Your task to perform on an android device: Add logitech g910 to the cart on bestbuy.com Image 0: 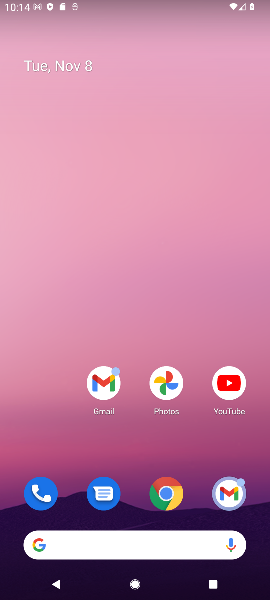
Step 0: click (166, 492)
Your task to perform on an android device: Add logitech g910 to the cart on bestbuy.com Image 1: 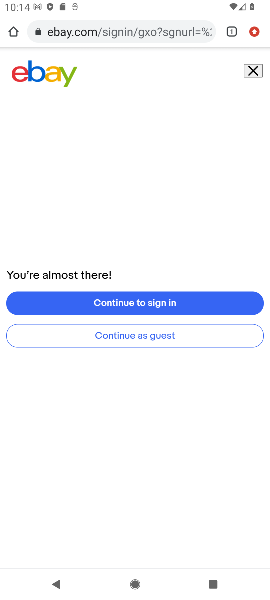
Step 1: click (92, 34)
Your task to perform on an android device: Add logitech g910 to the cart on bestbuy.com Image 2: 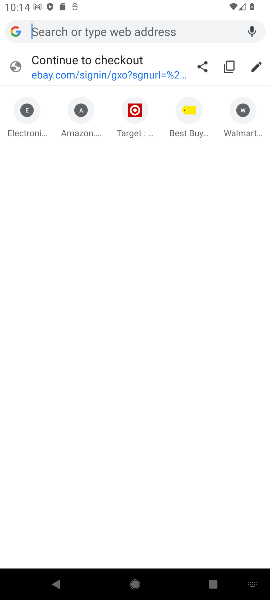
Step 2: click (183, 128)
Your task to perform on an android device: Add logitech g910 to the cart on bestbuy.com Image 3: 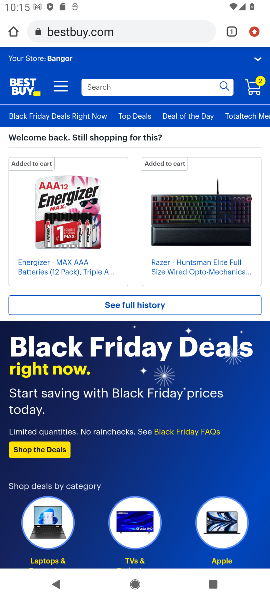
Step 3: click (112, 87)
Your task to perform on an android device: Add logitech g910 to the cart on bestbuy.com Image 4: 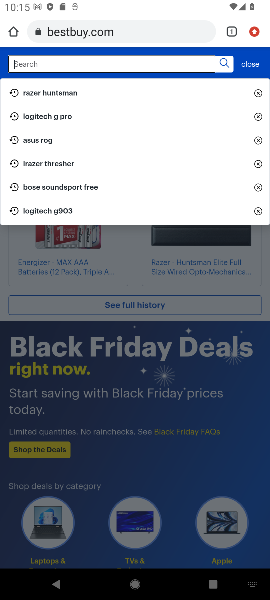
Step 4: type " logitech g910"
Your task to perform on an android device: Add logitech g910 to the cart on bestbuy.com Image 5: 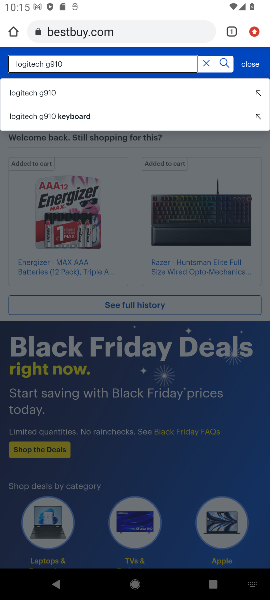
Step 5: click (227, 66)
Your task to perform on an android device: Add logitech g910 to the cart on bestbuy.com Image 6: 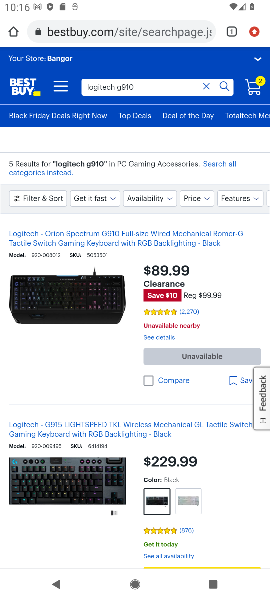
Step 6: drag from (67, 337) to (54, 197)
Your task to perform on an android device: Add logitech g910 to the cart on bestbuy.com Image 7: 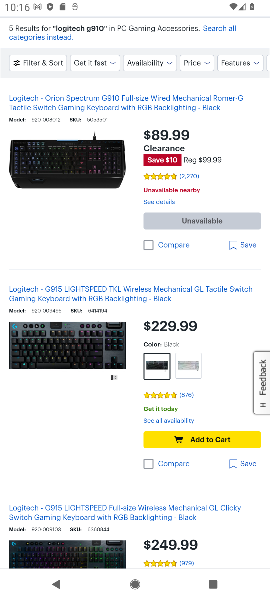
Step 7: drag from (70, 233) to (75, 376)
Your task to perform on an android device: Add logitech g910 to the cart on bestbuy.com Image 8: 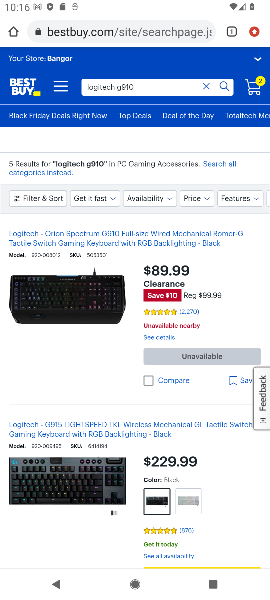
Step 8: click (71, 343)
Your task to perform on an android device: Add logitech g910 to the cart on bestbuy.com Image 9: 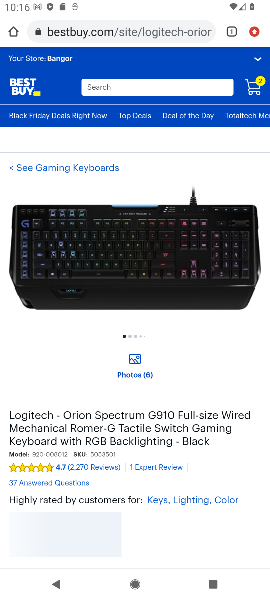
Step 9: task complete